Your task to perform on an android device: turn on wifi Image 0: 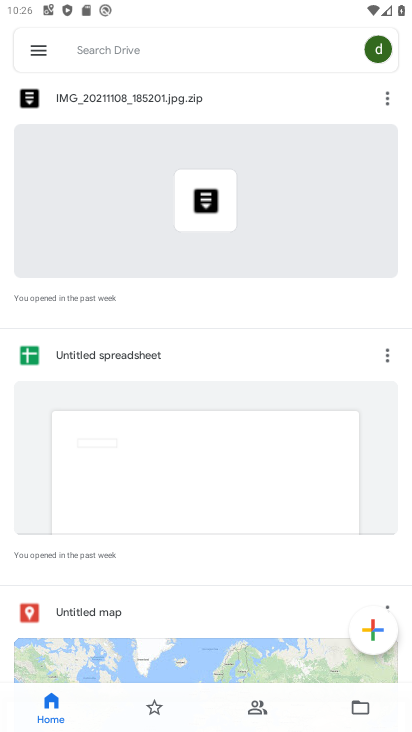
Step 0: press home button
Your task to perform on an android device: turn on wifi Image 1: 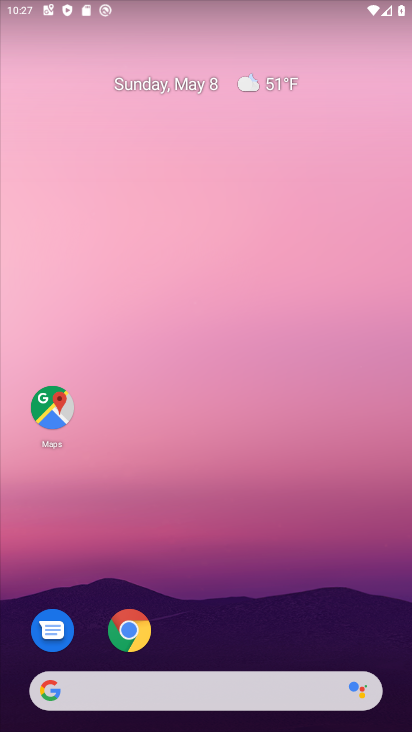
Step 1: task complete